Your task to perform on an android device: What's on my calendar tomorrow? Image 0: 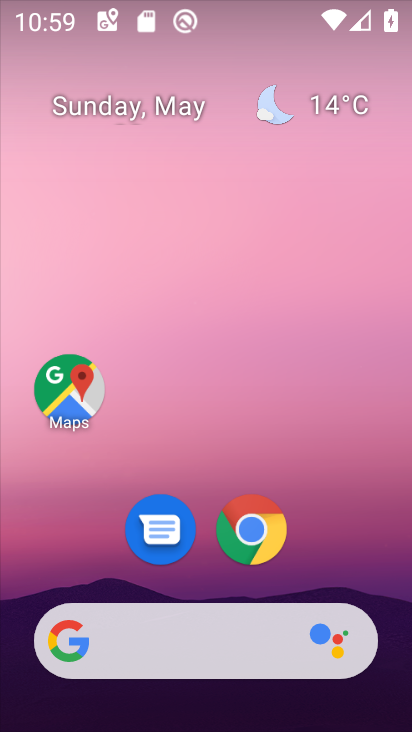
Step 0: drag from (231, 610) to (222, 48)
Your task to perform on an android device: What's on my calendar tomorrow? Image 1: 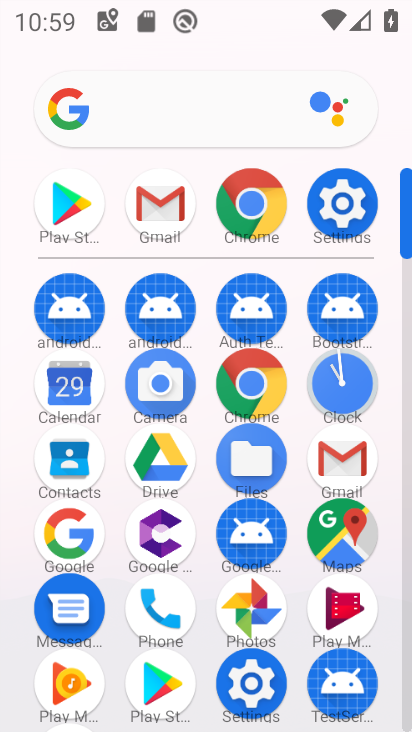
Step 1: click (70, 381)
Your task to perform on an android device: What's on my calendar tomorrow? Image 2: 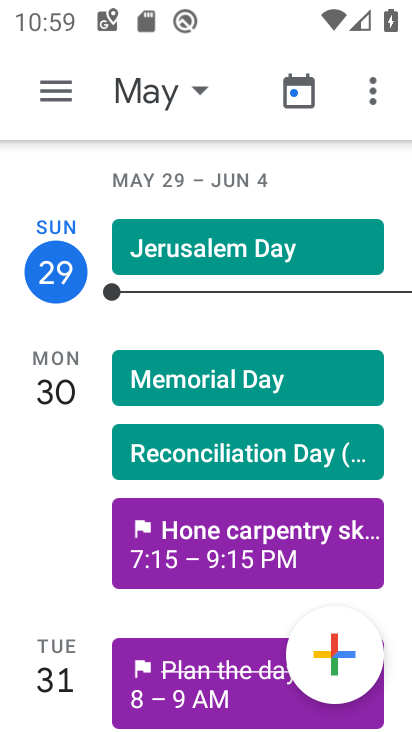
Step 2: click (51, 99)
Your task to perform on an android device: What's on my calendar tomorrow? Image 3: 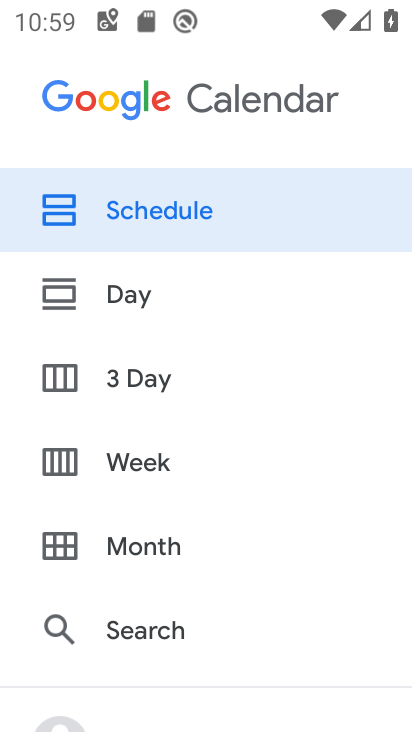
Step 3: click (163, 209)
Your task to perform on an android device: What's on my calendar tomorrow? Image 4: 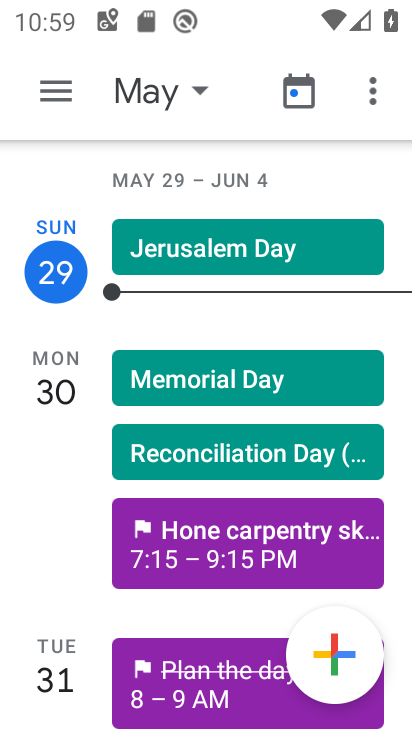
Step 4: task complete